Your task to perform on an android device: delete a single message in the gmail app Image 0: 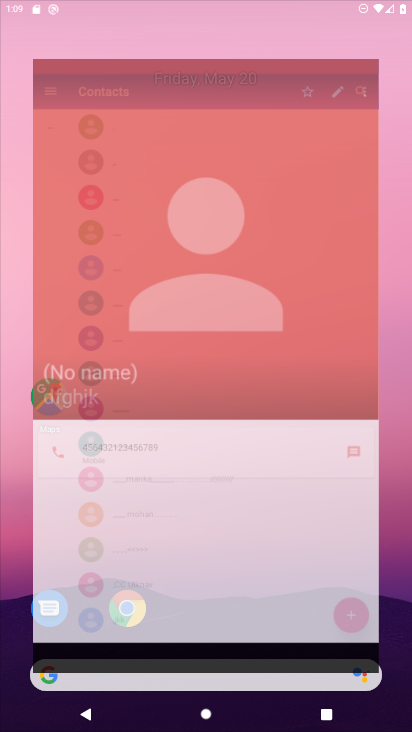
Step 0: press home button
Your task to perform on an android device: delete a single message in the gmail app Image 1: 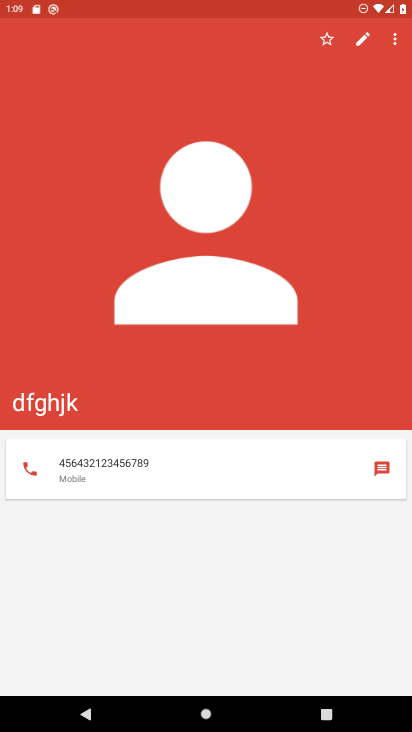
Step 1: press home button
Your task to perform on an android device: delete a single message in the gmail app Image 2: 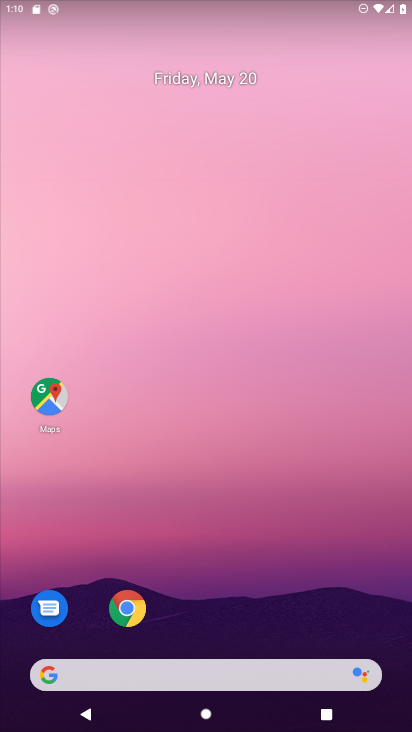
Step 2: drag from (318, 641) to (263, 196)
Your task to perform on an android device: delete a single message in the gmail app Image 3: 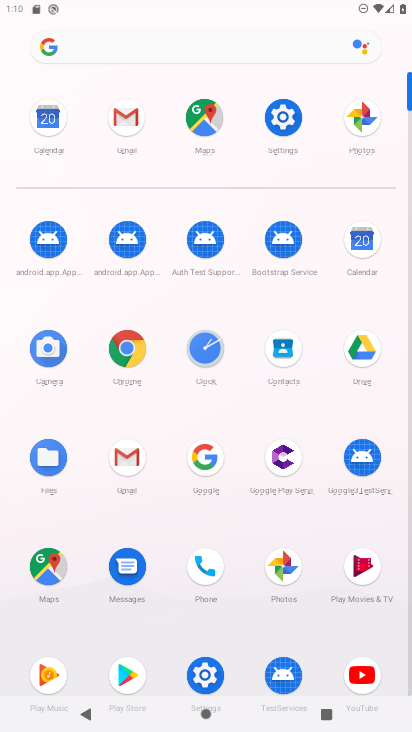
Step 3: click (119, 128)
Your task to perform on an android device: delete a single message in the gmail app Image 4: 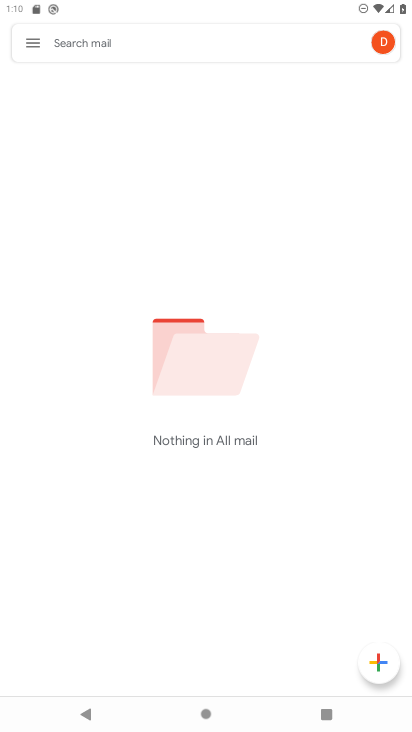
Step 4: task complete